Your task to perform on an android device: change the clock display to analog Image 0: 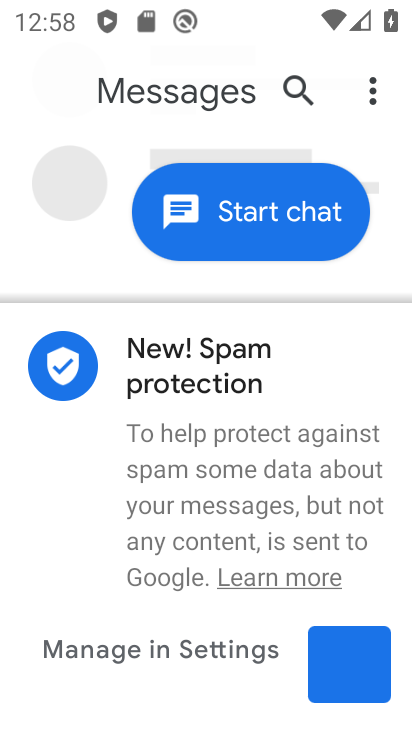
Step 0: press home button
Your task to perform on an android device: change the clock display to analog Image 1: 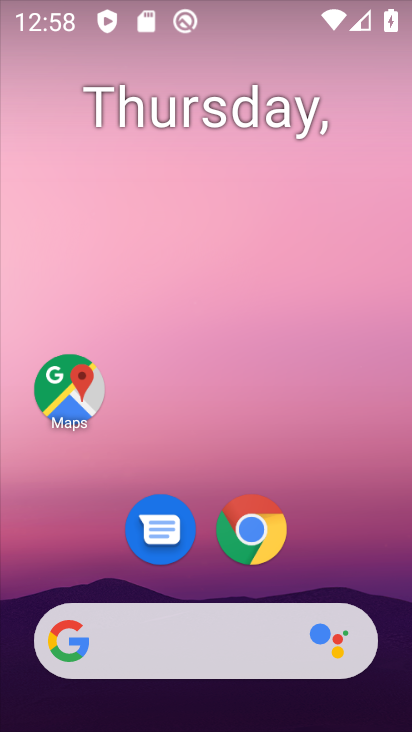
Step 1: drag from (356, 500) to (319, 157)
Your task to perform on an android device: change the clock display to analog Image 2: 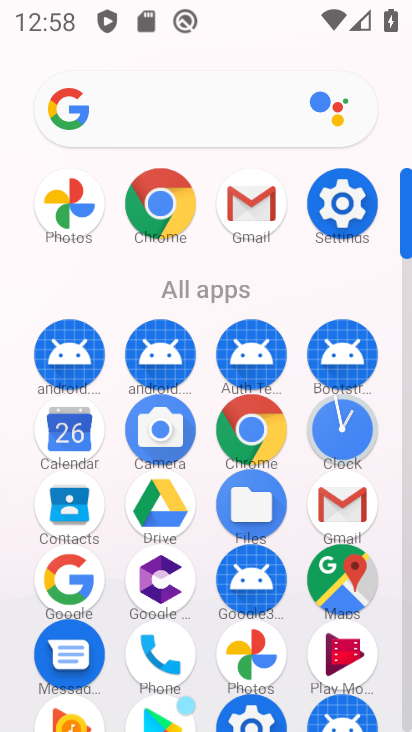
Step 2: click (333, 438)
Your task to perform on an android device: change the clock display to analog Image 3: 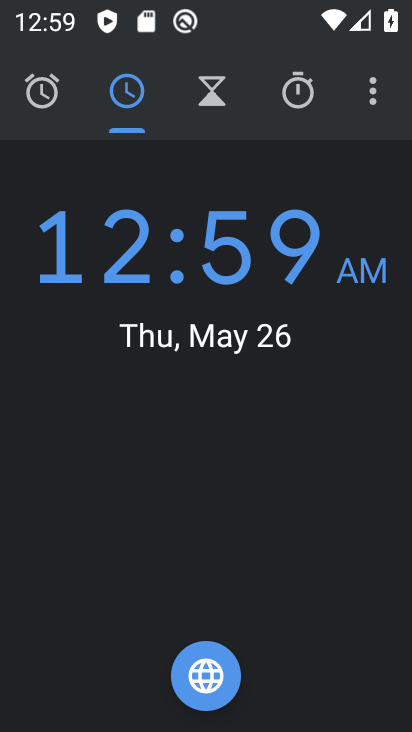
Step 3: click (389, 87)
Your task to perform on an android device: change the clock display to analog Image 4: 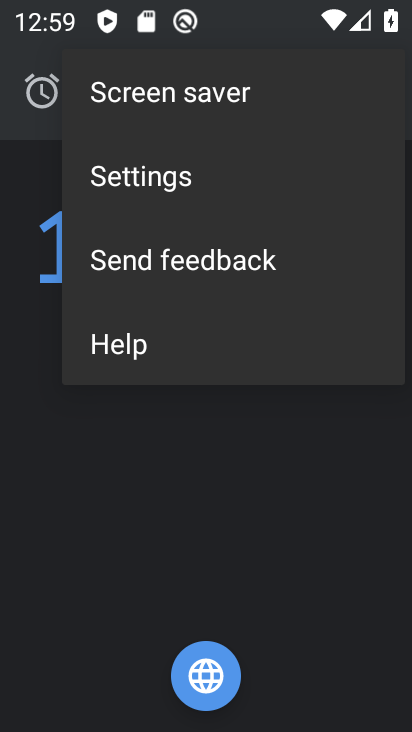
Step 4: click (170, 170)
Your task to perform on an android device: change the clock display to analog Image 5: 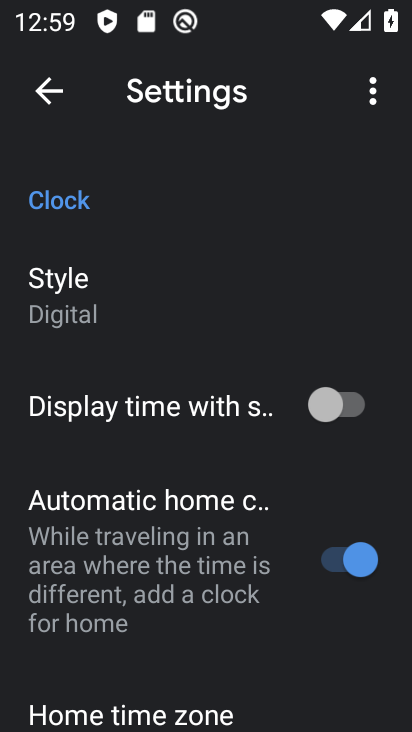
Step 5: click (135, 295)
Your task to perform on an android device: change the clock display to analog Image 6: 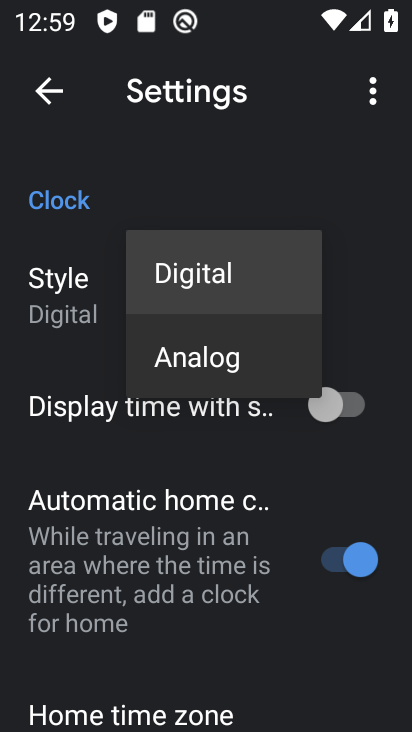
Step 6: click (176, 360)
Your task to perform on an android device: change the clock display to analog Image 7: 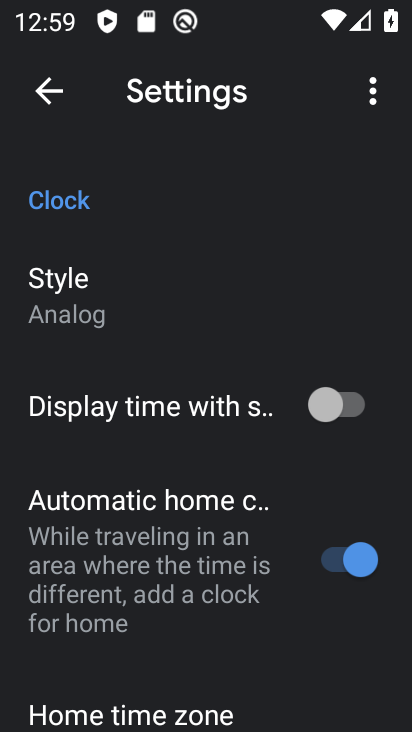
Step 7: task complete